Your task to perform on an android device: Open Maps and search for coffee Image 0: 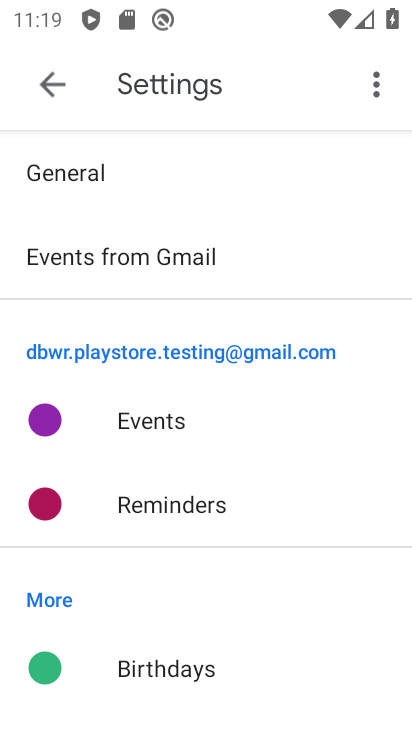
Step 0: press home button
Your task to perform on an android device: Open Maps and search for coffee Image 1: 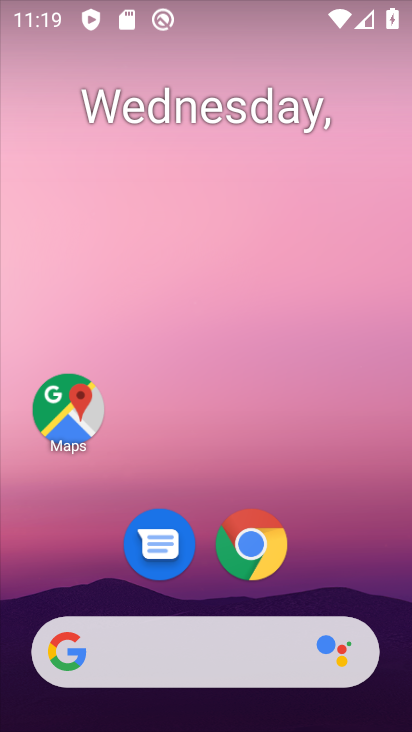
Step 1: drag from (370, 551) to (314, 47)
Your task to perform on an android device: Open Maps and search for coffee Image 2: 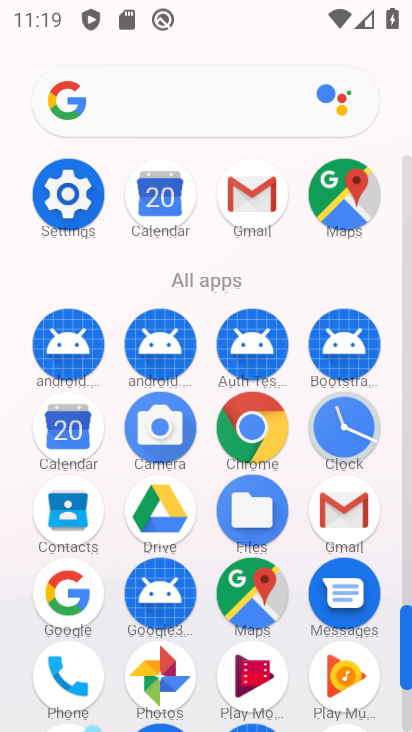
Step 2: click (271, 604)
Your task to perform on an android device: Open Maps and search for coffee Image 3: 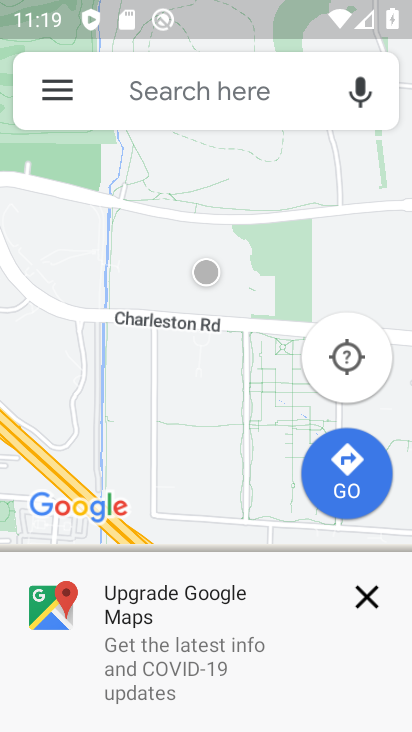
Step 3: click (240, 76)
Your task to perform on an android device: Open Maps and search for coffee Image 4: 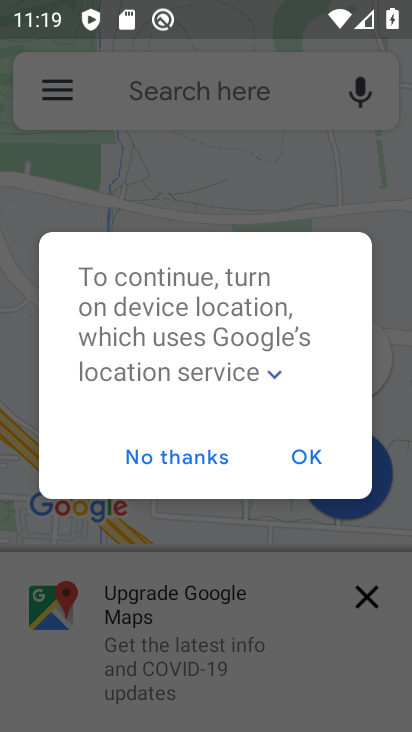
Step 4: click (240, 76)
Your task to perform on an android device: Open Maps and search for coffee Image 5: 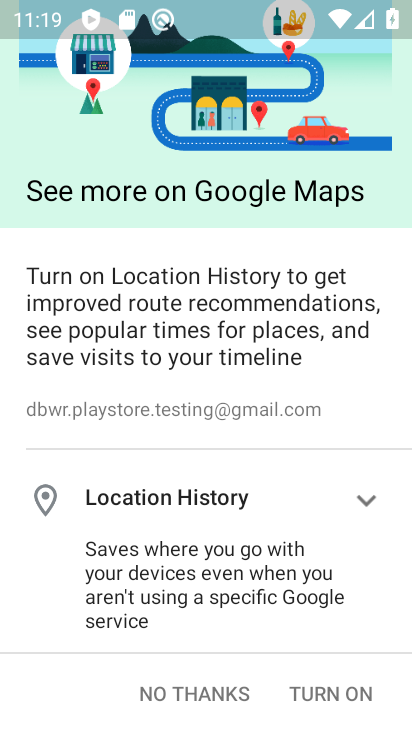
Step 5: click (178, 699)
Your task to perform on an android device: Open Maps and search for coffee Image 6: 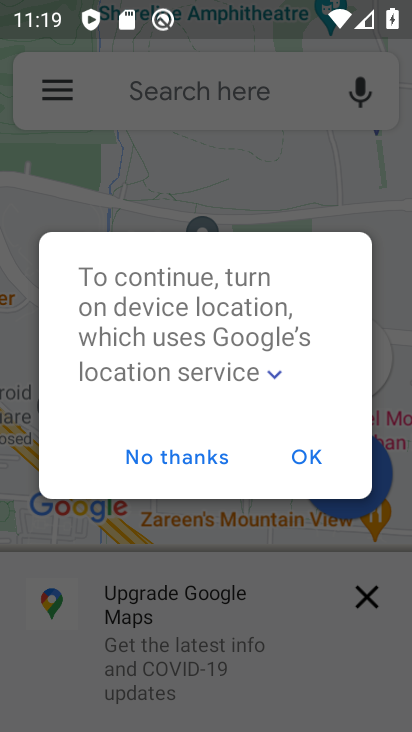
Step 6: click (314, 460)
Your task to perform on an android device: Open Maps and search for coffee Image 7: 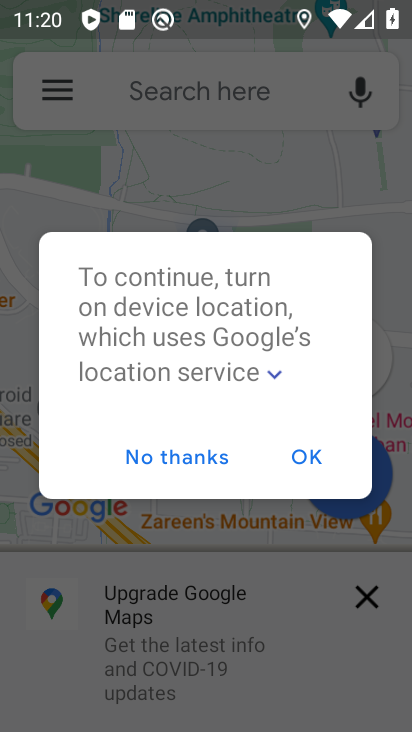
Step 7: click (312, 457)
Your task to perform on an android device: Open Maps and search for coffee Image 8: 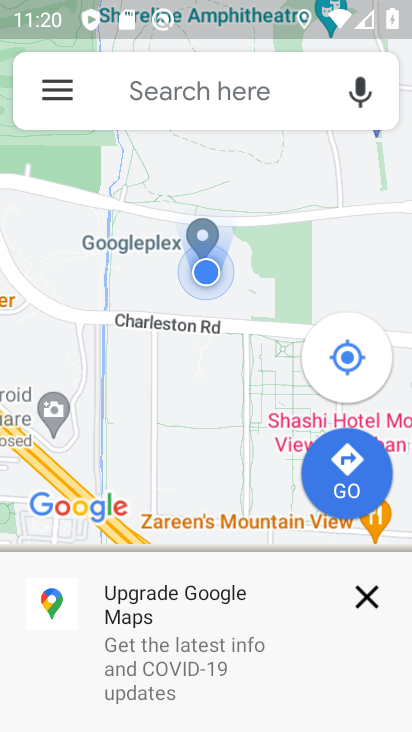
Step 8: click (256, 81)
Your task to perform on an android device: Open Maps and search for coffee Image 9: 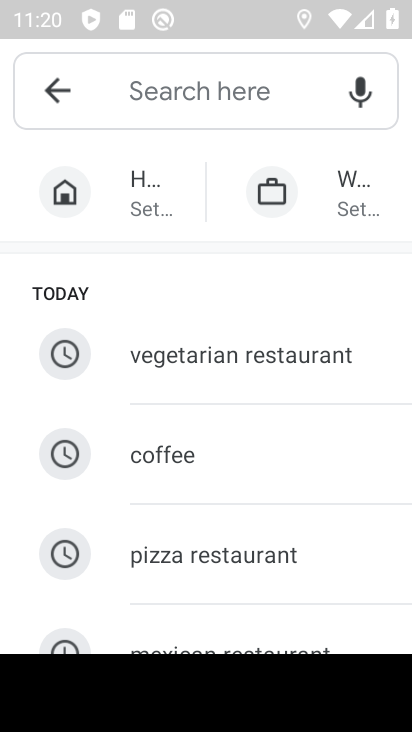
Step 9: type "coffee"
Your task to perform on an android device: Open Maps and search for coffee Image 10: 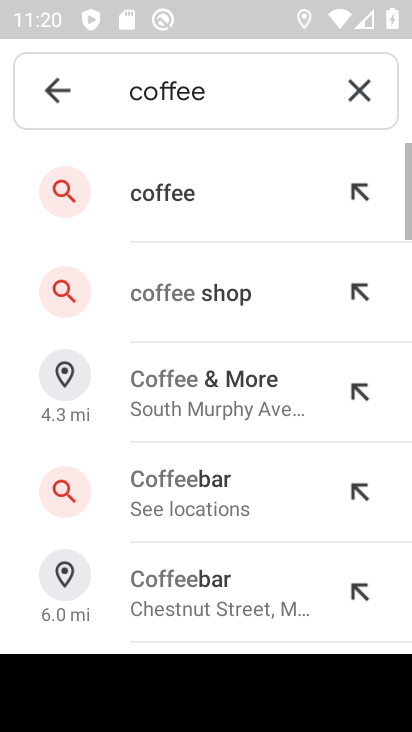
Step 10: click (146, 197)
Your task to perform on an android device: Open Maps and search for coffee Image 11: 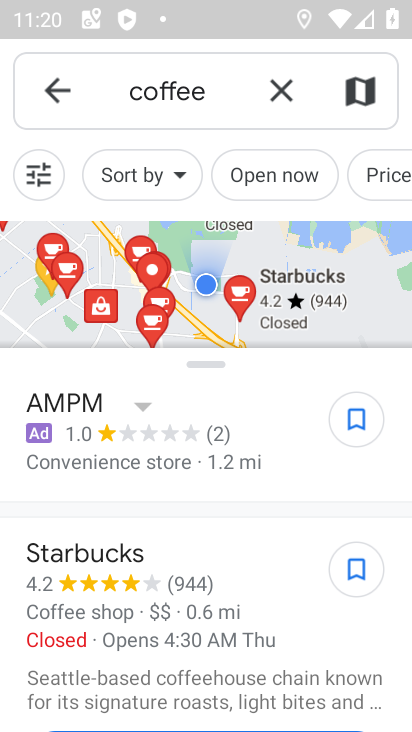
Step 11: task complete